Your task to perform on an android device: What is the recent news? Image 0: 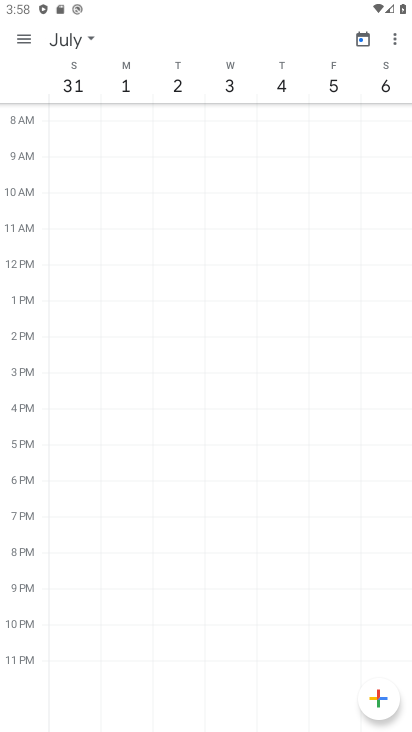
Step 0: press home button
Your task to perform on an android device: What is the recent news? Image 1: 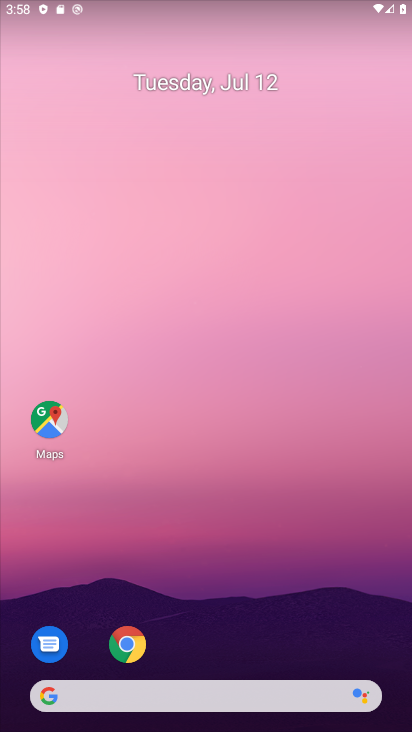
Step 1: task complete